Your task to perform on an android device: check the backup settings in the google photos Image 0: 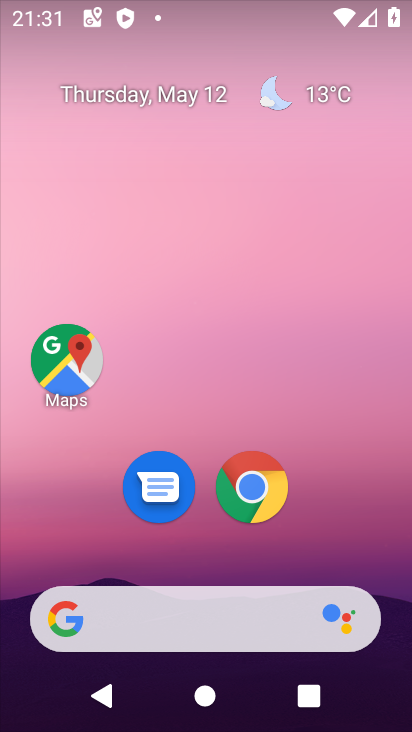
Step 0: drag from (203, 551) to (189, 57)
Your task to perform on an android device: check the backup settings in the google photos Image 1: 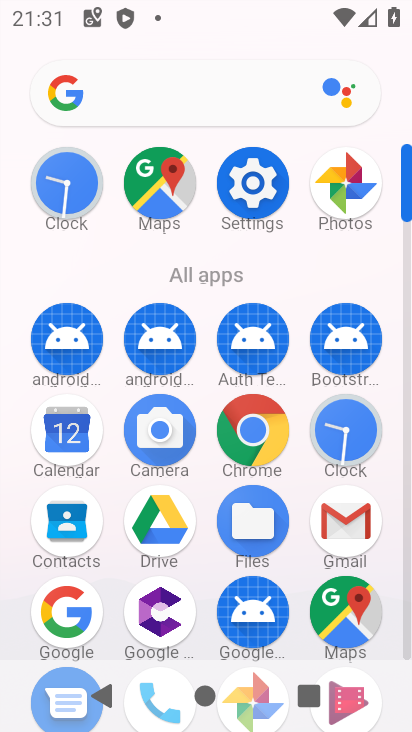
Step 1: click (362, 181)
Your task to perform on an android device: check the backup settings in the google photos Image 2: 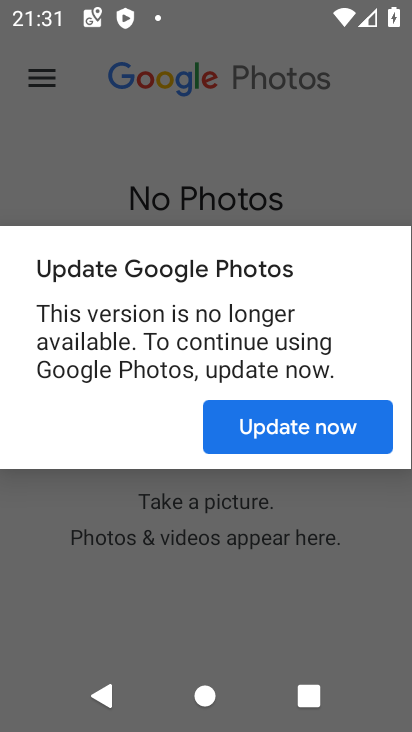
Step 2: click (277, 438)
Your task to perform on an android device: check the backup settings in the google photos Image 3: 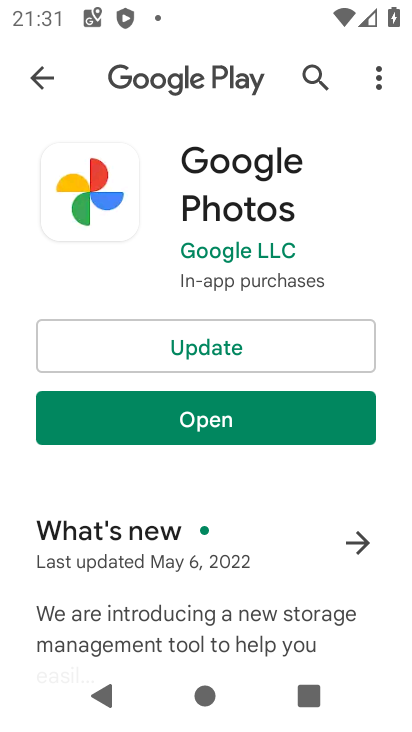
Step 3: click (274, 433)
Your task to perform on an android device: check the backup settings in the google photos Image 4: 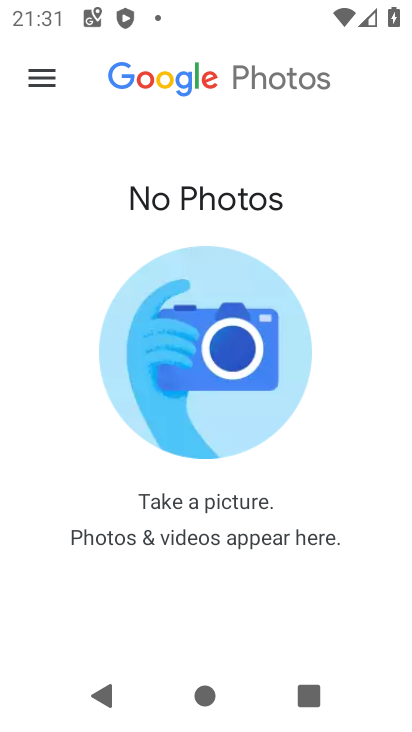
Step 4: click (55, 98)
Your task to perform on an android device: check the backup settings in the google photos Image 5: 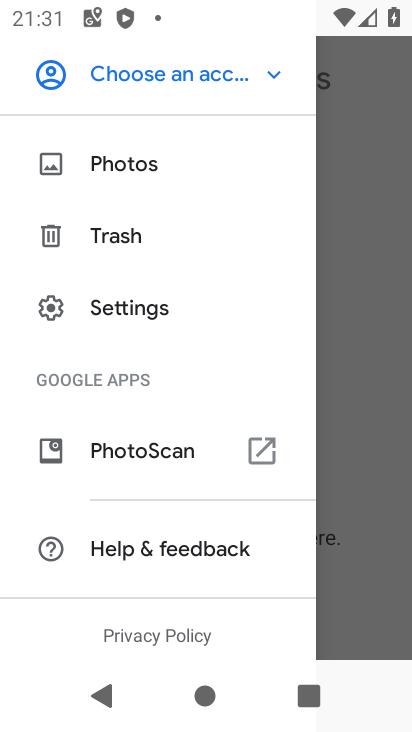
Step 5: click (247, 311)
Your task to perform on an android device: check the backup settings in the google photos Image 6: 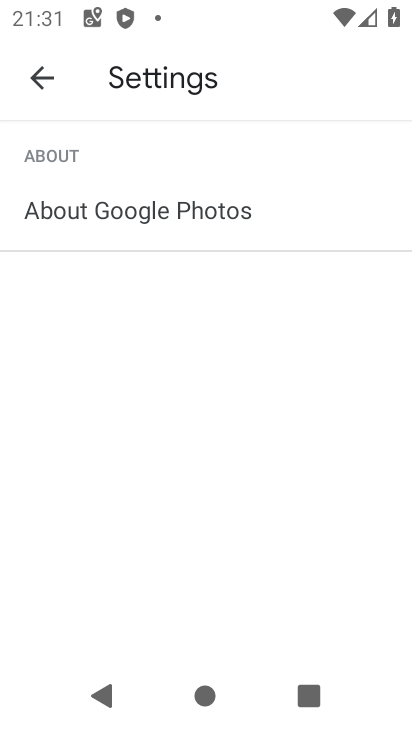
Step 6: click (314, 197)
Your task to perform on an android device: check the backup settings in the google photos Image 7: 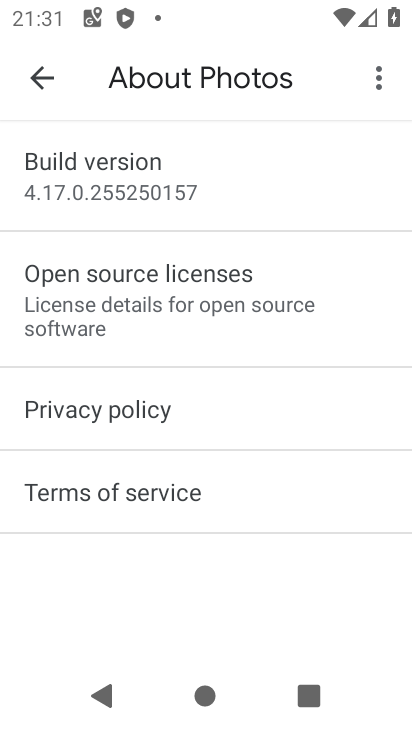
Step 7: click (36, 74)
Your task to perform on an android device: check the backup settings in the google photos Image 8: 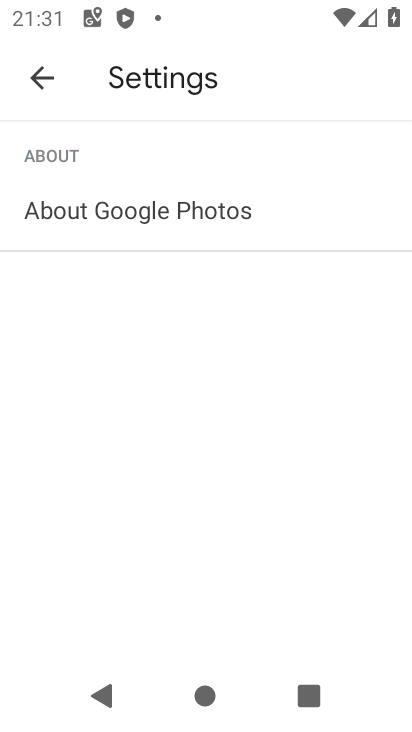
Step 8: click (36, 74)
Your task to perform on an android device: check the backup settings in the google photos Image 9: 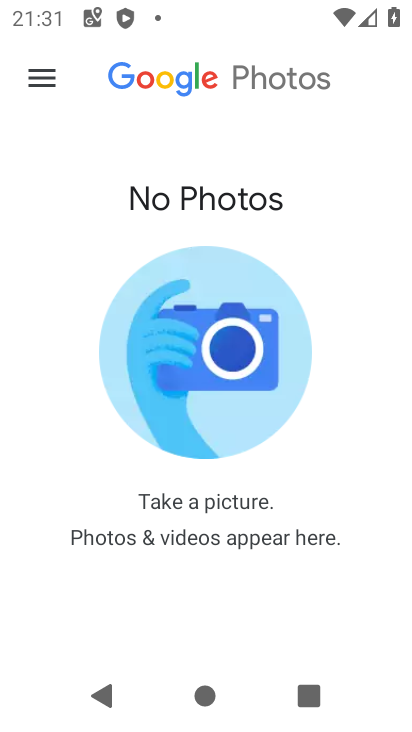
Step 9: click (44, 80)
Your task to perform on an android device: check the backup settings in the google photos Image 10: 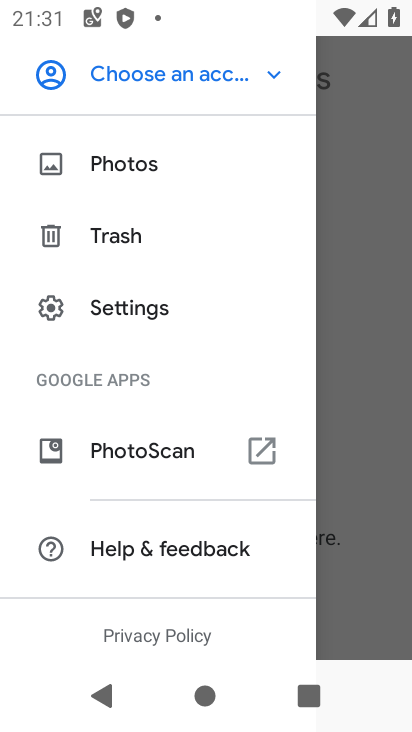
Step 10: click (116, 75)
Your task to perform on an android device: check the backup settings in the google photos Image 11: 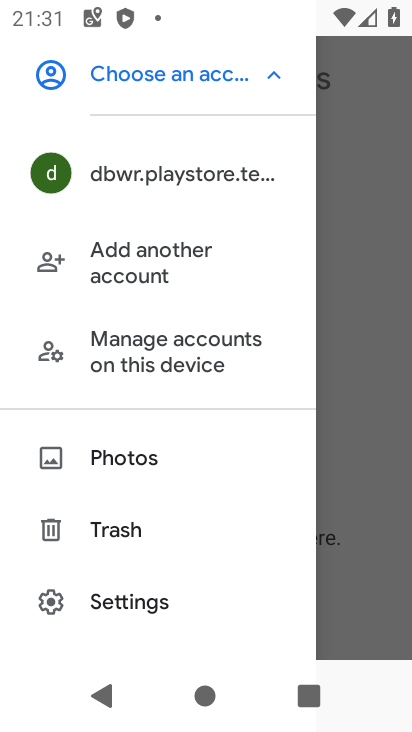
Step 11: click (190, 180)
Your task to perform on an android device: check the backup settings in the google photos Image 12: 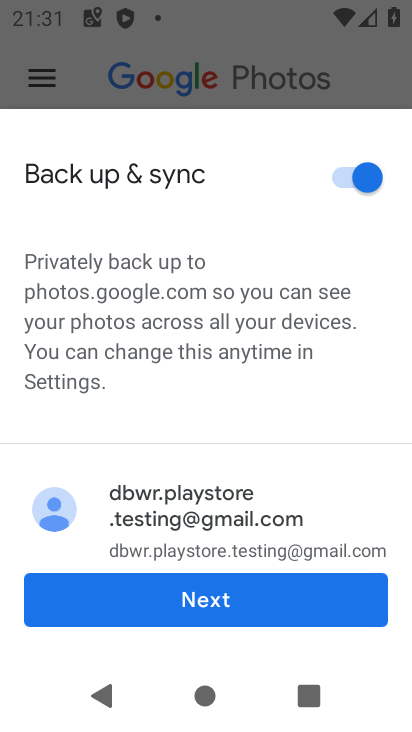
Step 12: click (252, 592)
Your task to perform on an android device: check the backup settings in the google photos Image 13: 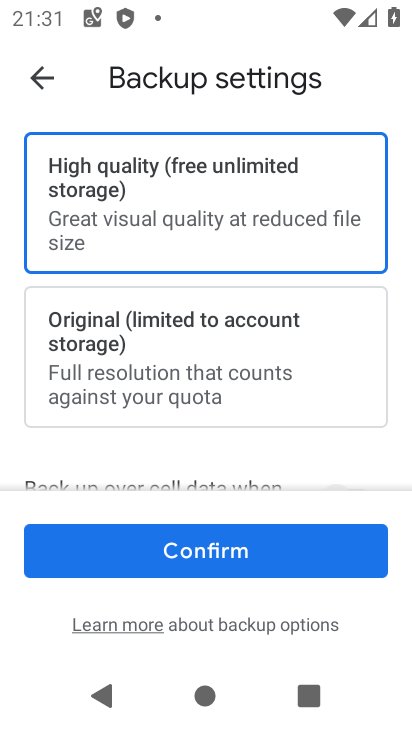
Step 13: task complete